Your task to perform on an android device: install app "Messenger Lite" Image 0: 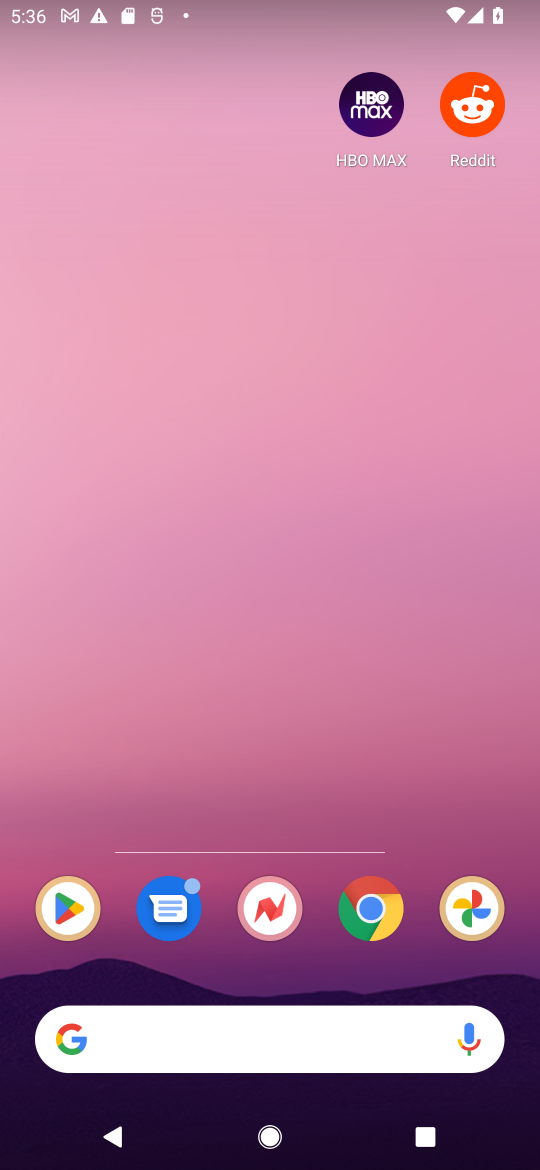
Step 0: press home button
Your task to perform on an android device: install app "Messenger Lite" Image 1: 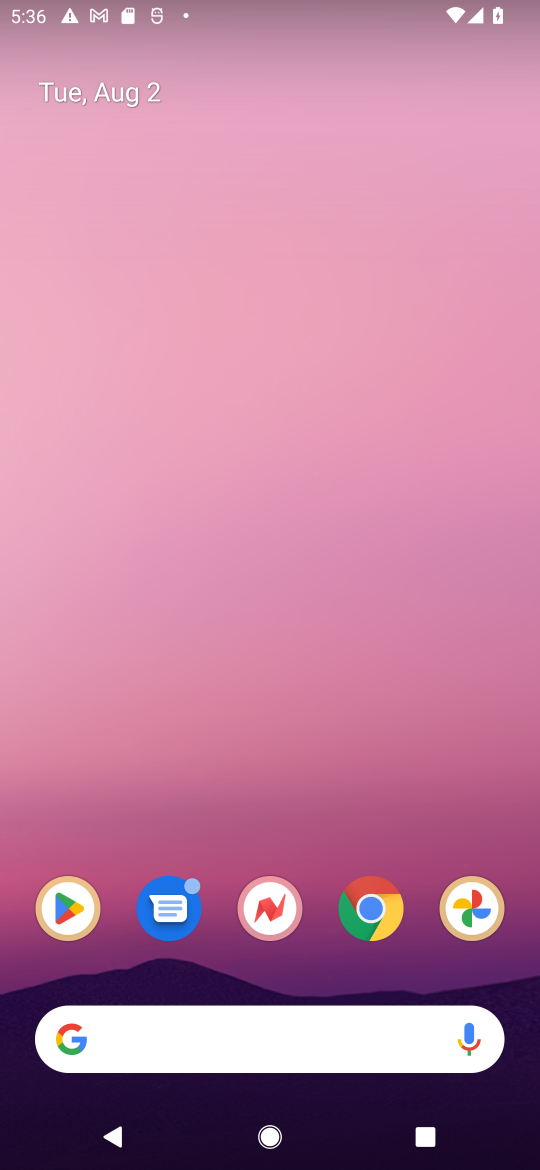
Step 1: click (57, 901)
Your task to perform on an android device: install app "Messenger Lite" Image 2: 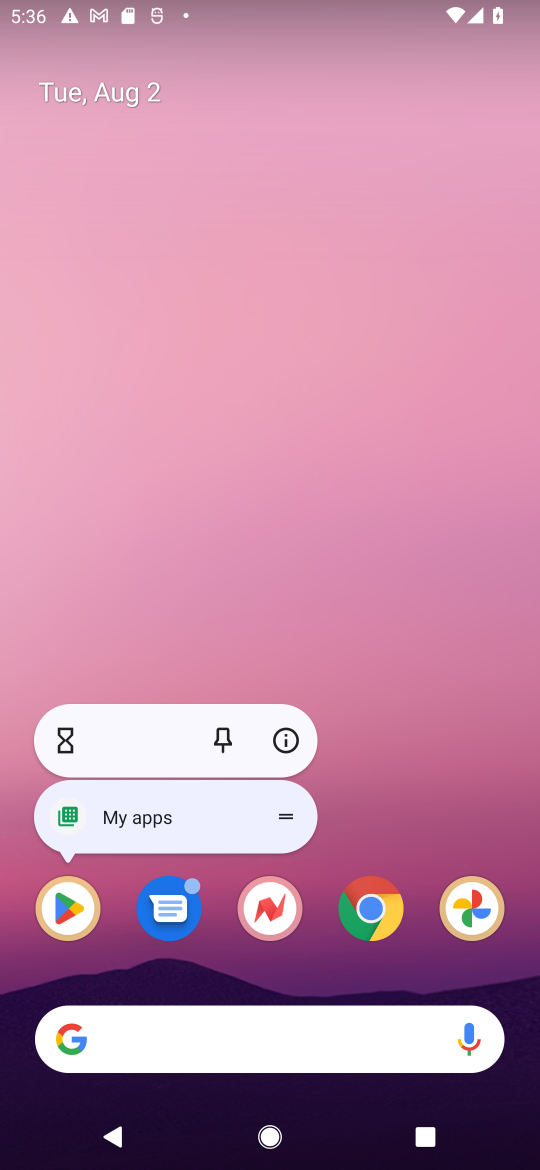
Step 2: click (58, 895)
Your task to perform on an android device: install app "Messenger Lite" Image 3: 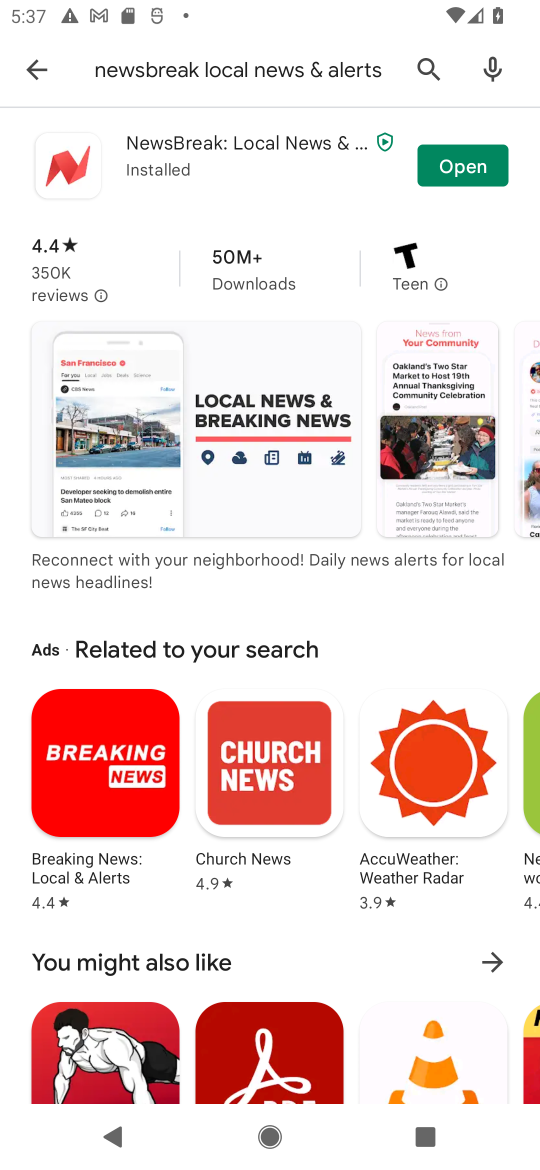
Step 3: click (426, 77)
Your task to perform on an android device: install app "Messenger Lite" Image 4: 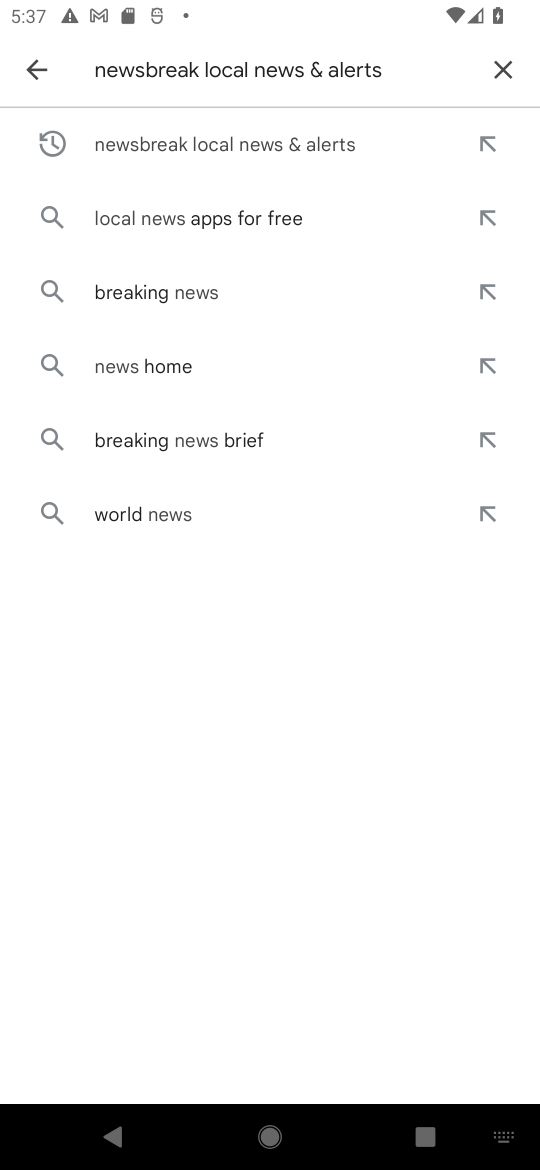
Step 4: click (498, 73)
Your task to perform on an android device: install app "Messenger Lite" Image 5: 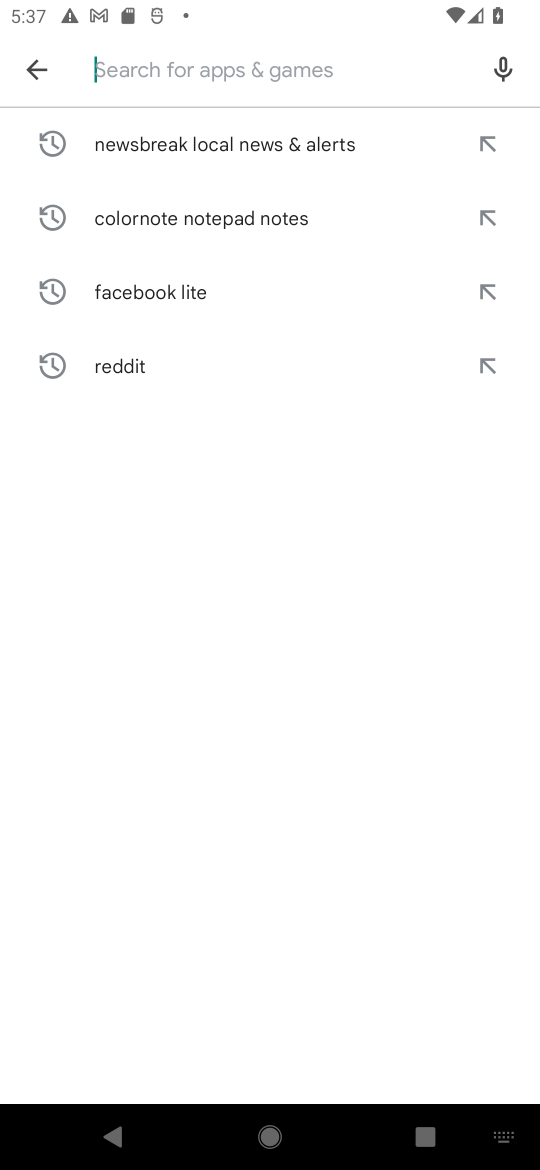
Step 5: type "Messenger Lite"
Your task to perform on an android device: install app "Messenger Lite" Image 6: 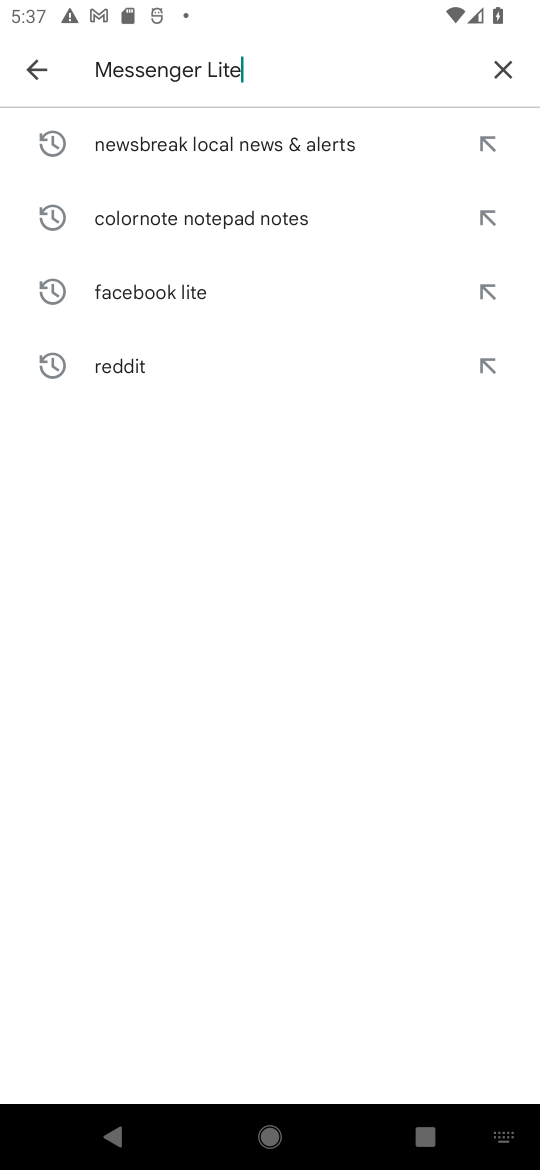
Step 6: type ""
Your task to perform on an android device: install app "Messenger Lite" Image 7: 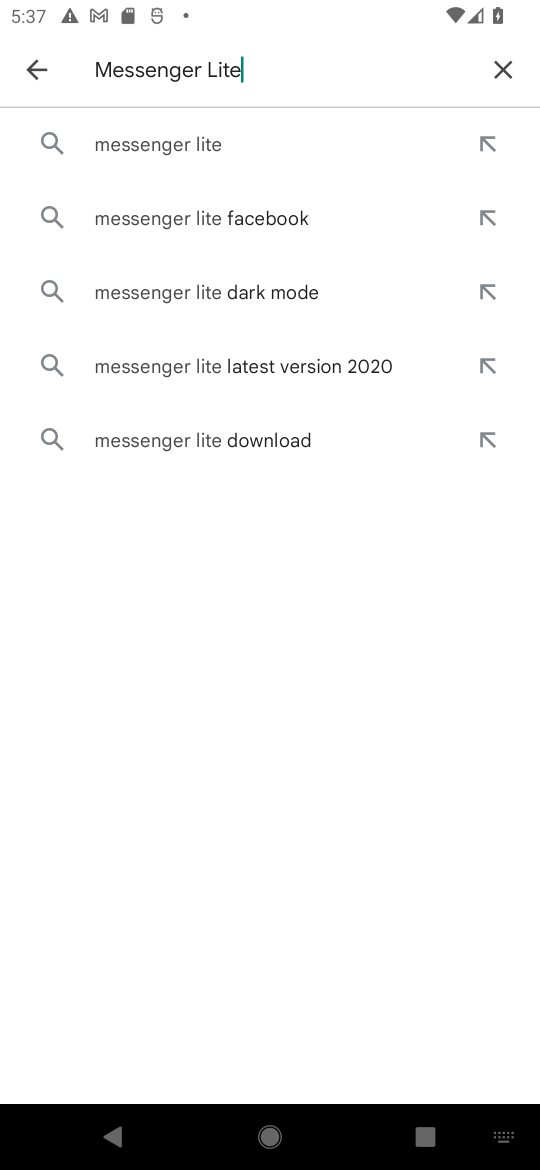
Step 7: click (246, 143)
Your task to perform on an android device: install app "Messenger Lite" Image 8: 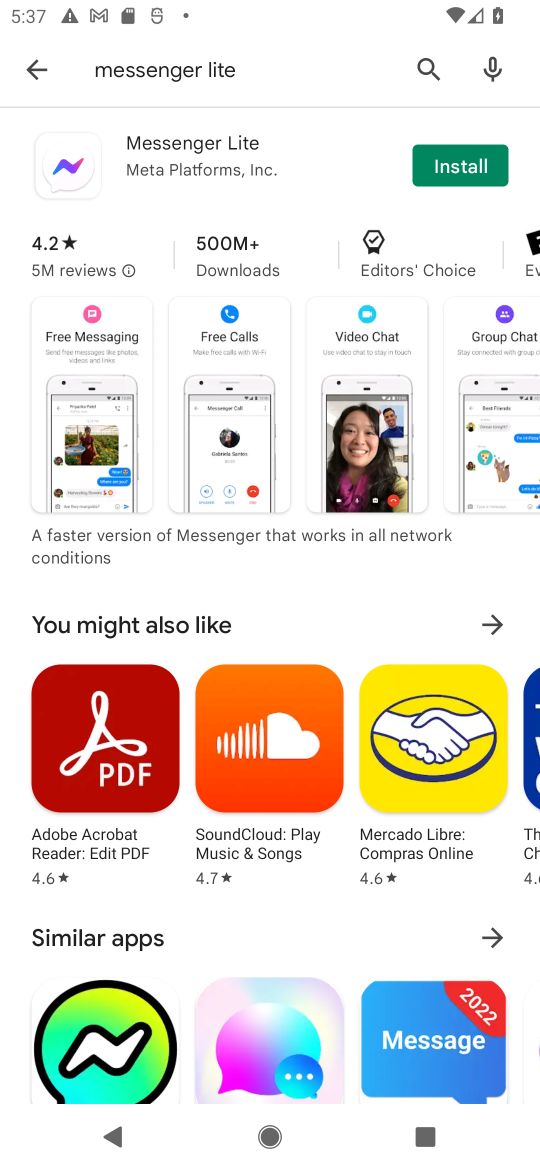
Step 8: click (479, 154)
Your task to perform on an android device: install app "Messenger Lite" Image 9: 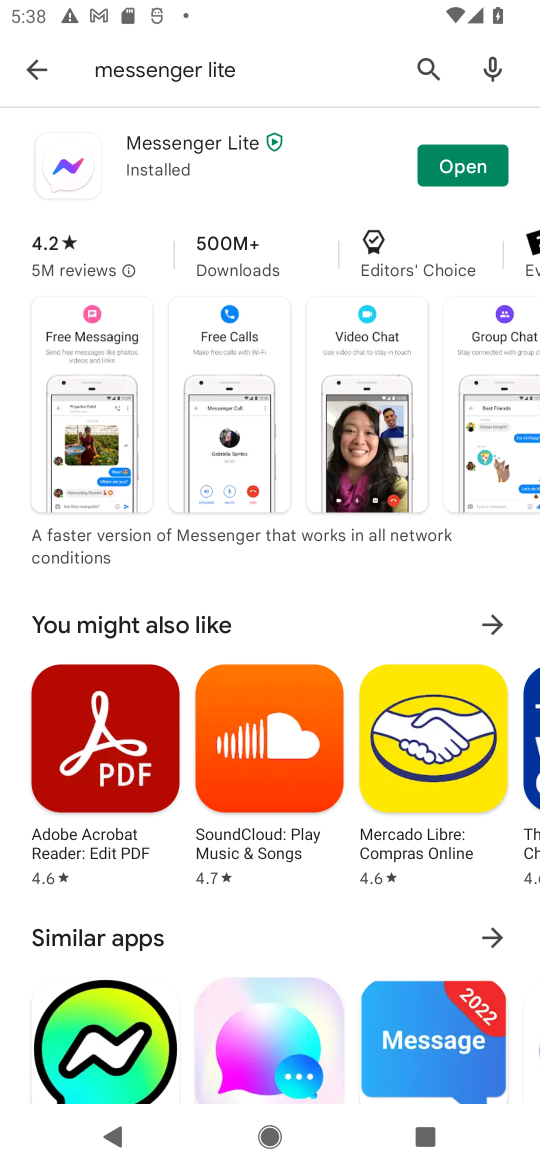
Step 9: click (487, 178)
Your task to perform on an android device: install app "Messenger Lite" Image 10: 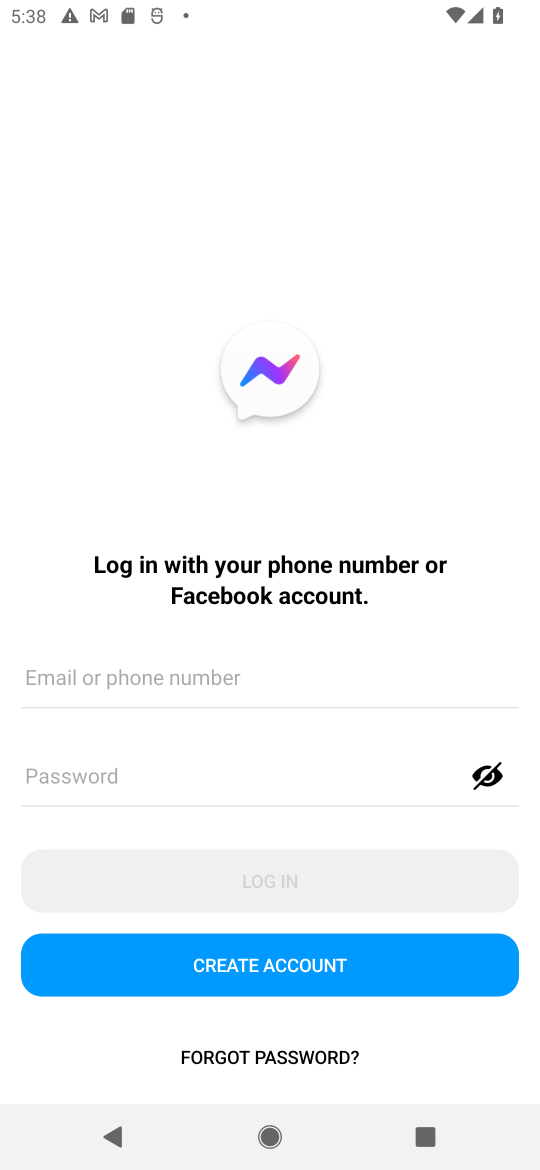
Step 10: task complete